Your task to perform on an android device: find snoozed emails in the gmail app Image 0: 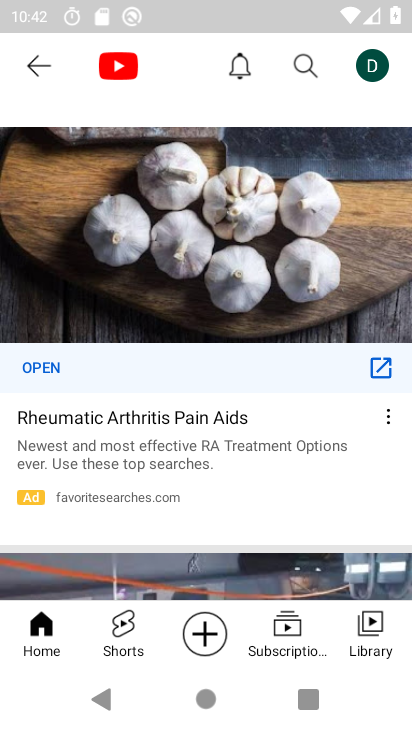
Step 0: press home button
Your task to perform on an android device: find snoozed emails in the gmail app Image 1: 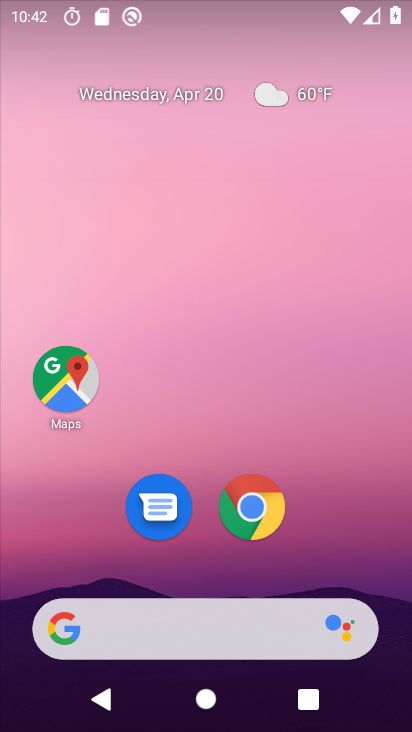
Step 1: drag from (147, 533) to (194, 100)
Your task to perform on an android device: find snoozed emails in the gmail app Image 2: 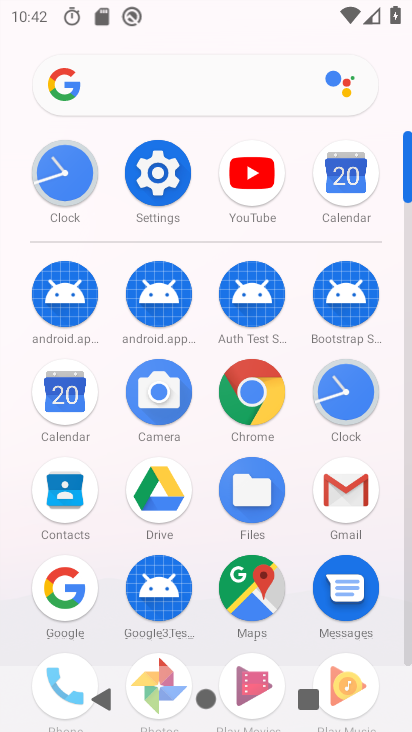
Step 2: click (355, 489)
Your task to perform on an android device: find snoozed emails in the gmail app Image 3: 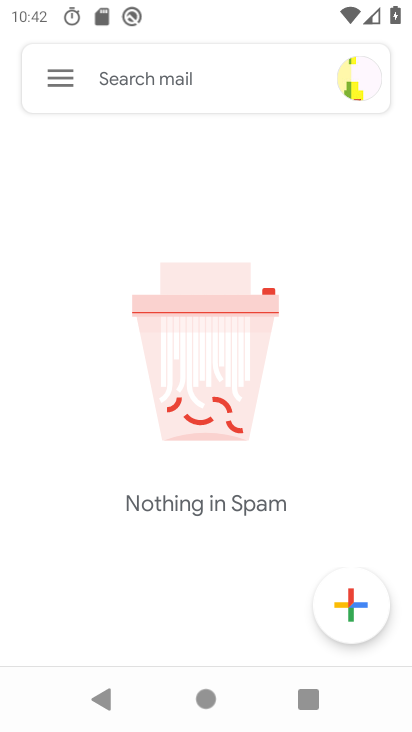
Step 3: click (58, 84)
Your task to perform on an android device: find snoozed emails in the gmail app Image 4: 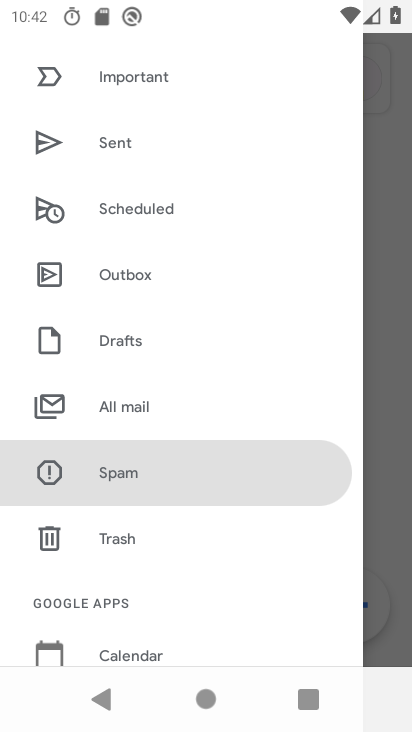
Step 4: drag from (162, 212) to (152, 483)
Your task to perform on an android device: find snoozed emails in the gmail app Image 5: 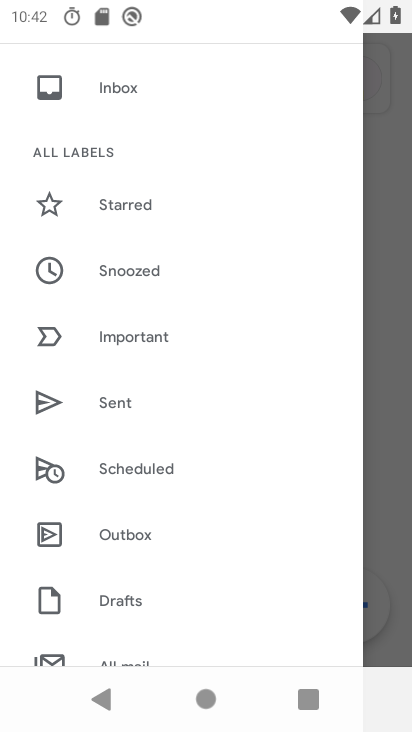
Step 5: click (139, 261)
Your task to perform on an android device: find snoozed emails in the gmail app Image 6: 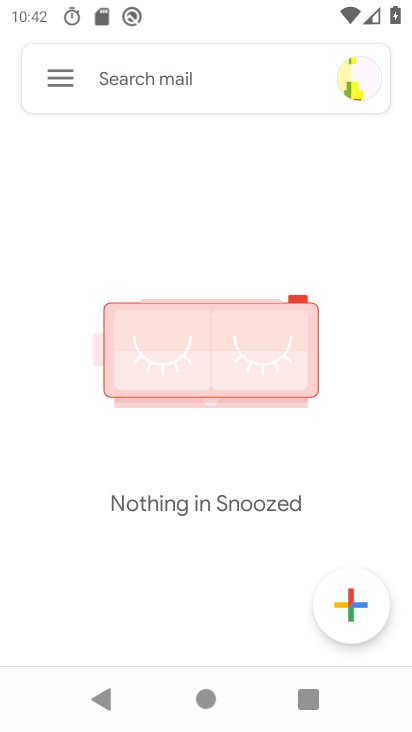
Step 6: task complete